Your task to perform on an android device: add a contact in the contacts app Image 0: 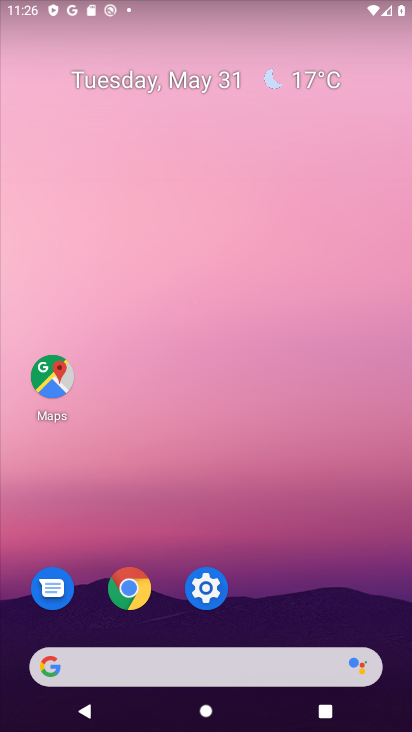
Step 0: press home button
Your task to perform on an android device: add a contact in the contacts app Image 1: 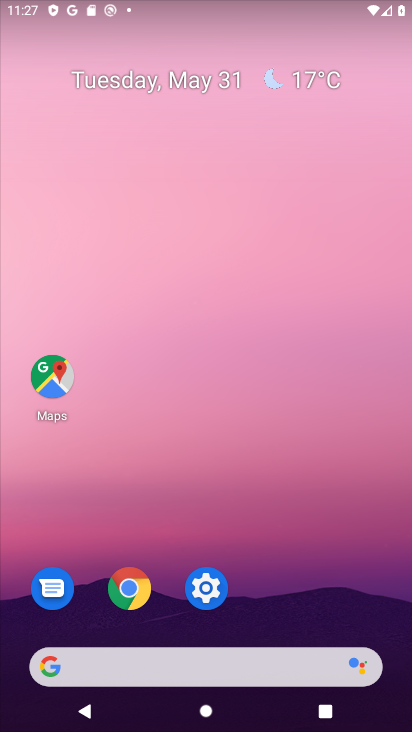
Step 1: drag from (254, 688) to (346, 219)
Your task to perform on an android device: add a contact in the contacts app Image 2: 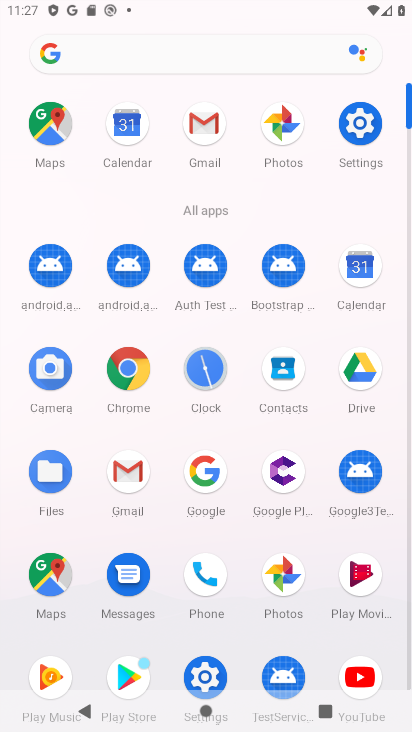
Step 2: click (203, 568)
Your task to perform on an android device: add a contact in the contacts app Image 3: 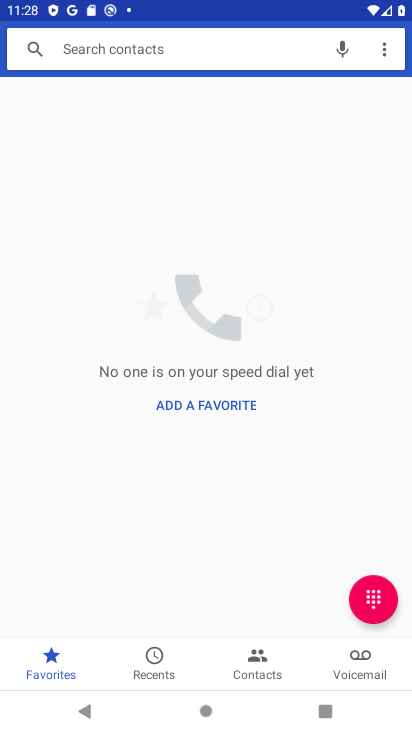
Step 3: click (265, 653)
Your task to perform on an android device: add a contact in the contacts app Image 4: 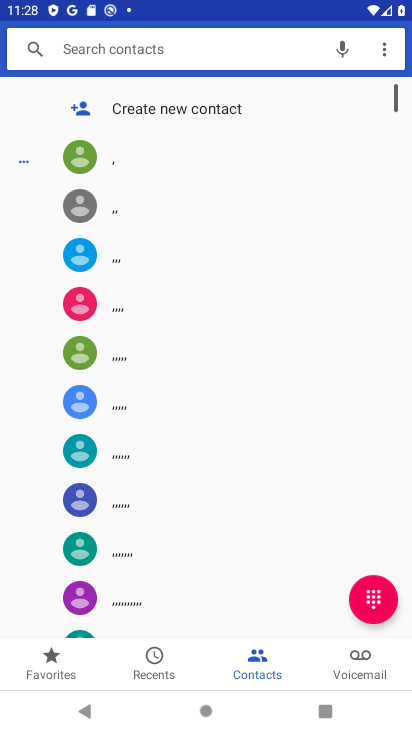
Step 4: click (172, 108)
Your task to perform on an android device: add a contact in the contacts app Image 5: 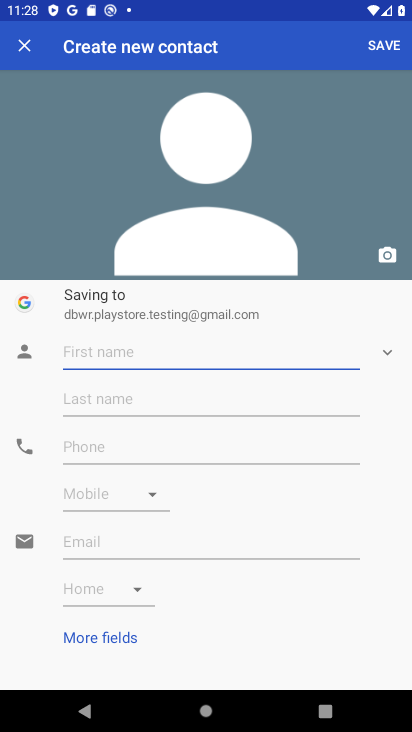
Step 5: click (98, 342)
Your task to perform on an android device: add a contact in the contacts app Image 6: 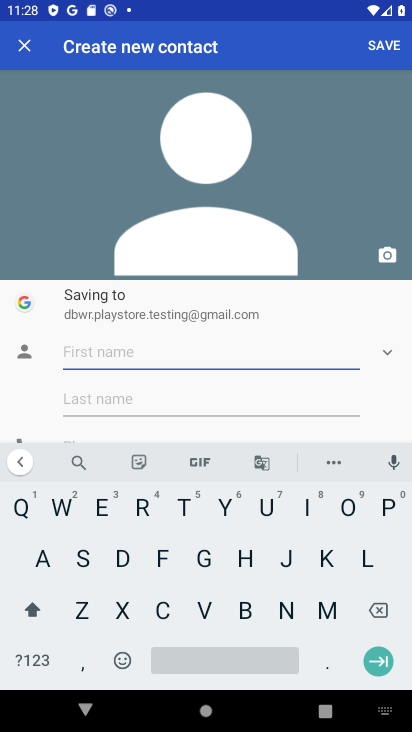
Step 6: click (247, 546)
Your task to perform on an android device: add a contact in the contacts app Image 7: 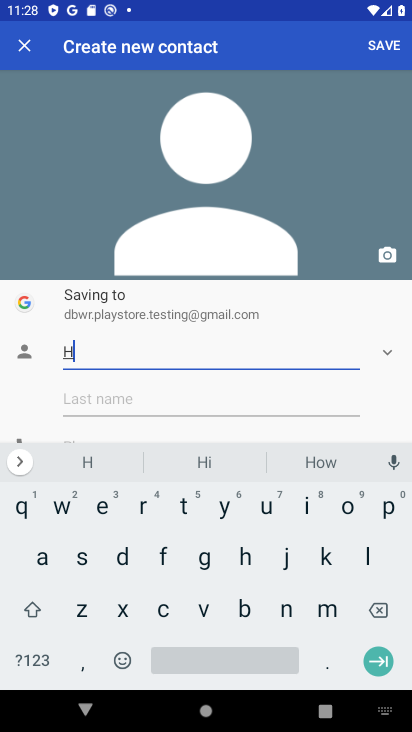
Step 7: click (152, 587)
Your task to perform on an android device: add a contact in the contacts app Image 8: 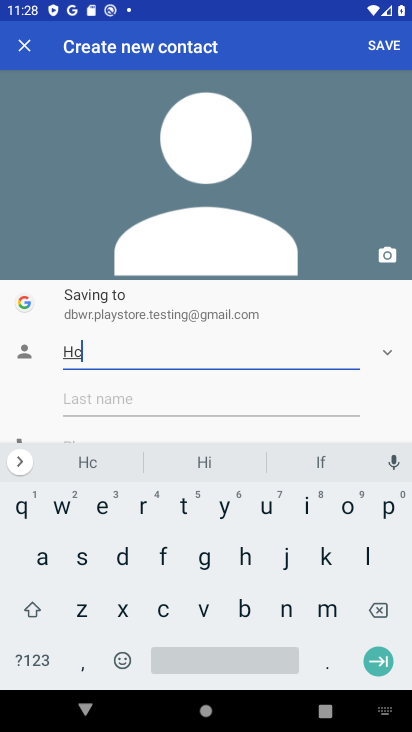
Step 8: click (93, 572)
Your task to perform on an android device: add a contact in the contacts app Image 9: 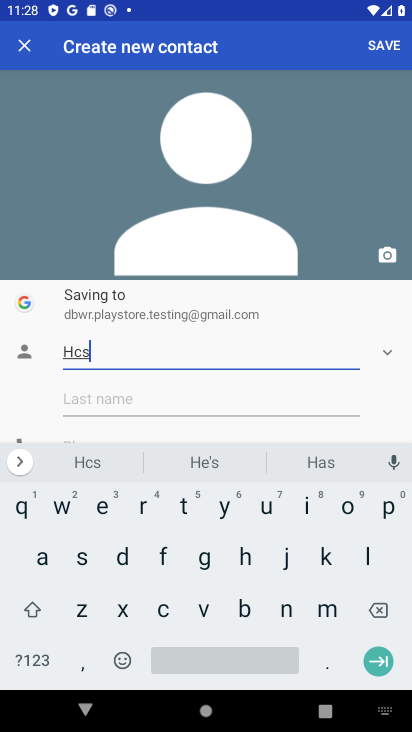
Step 9: click (115, 433)
Your task to perform on an android device: add a contact in the contacts app Image 10: 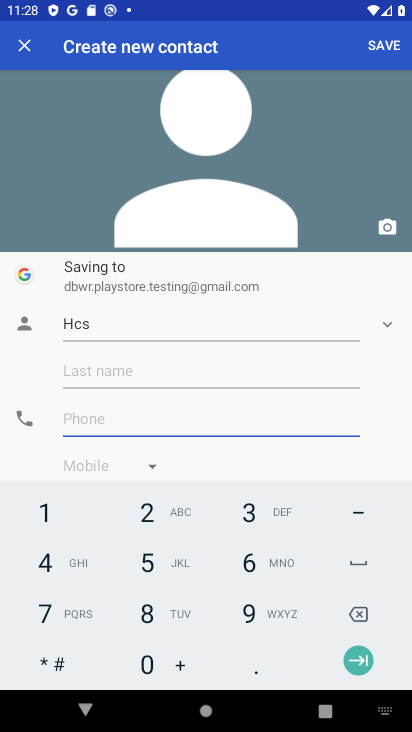
Step 10: click (179, 569)
Your task to perform on an android device: add a contact in the contacts app Image 11: 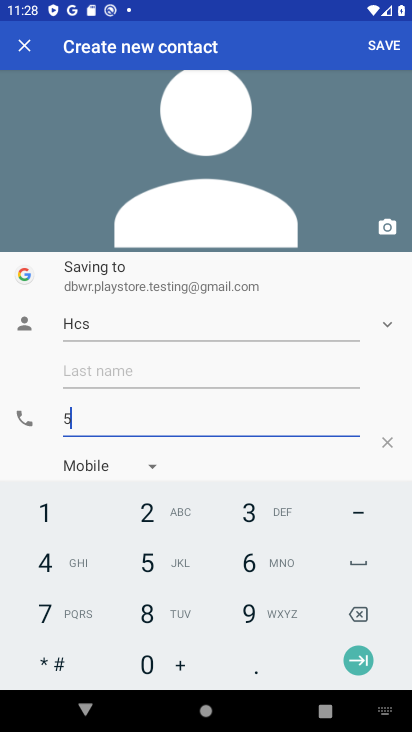
Step 11: click (176, 567)
Your task to perform on an android device: add a contact in the contacts app Image 12: 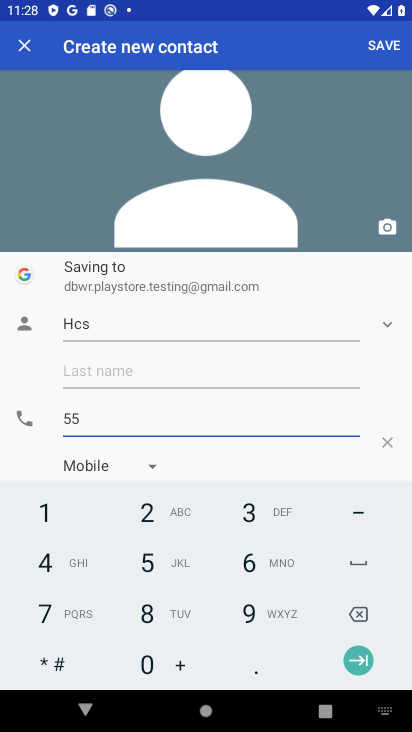
Step 12: click (265, 538)
Your task to perform on an android device: add a contact in the contacts app Image 13: 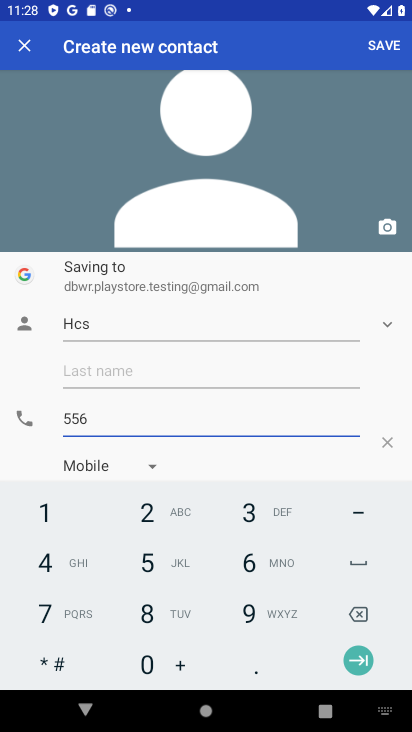
Step 13: click (254, 559)
Your task to perform on an android device: add a contact in the contacts app Image 14: 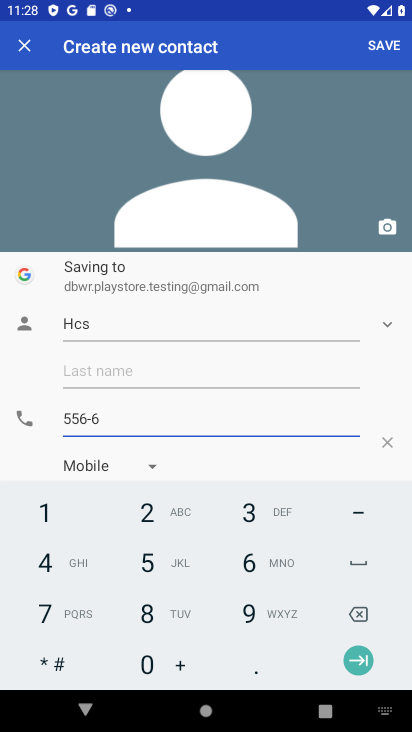
Step 14: click (247, 527)
Your task to perform on an android device: add a contact in the contacts app Image 15: 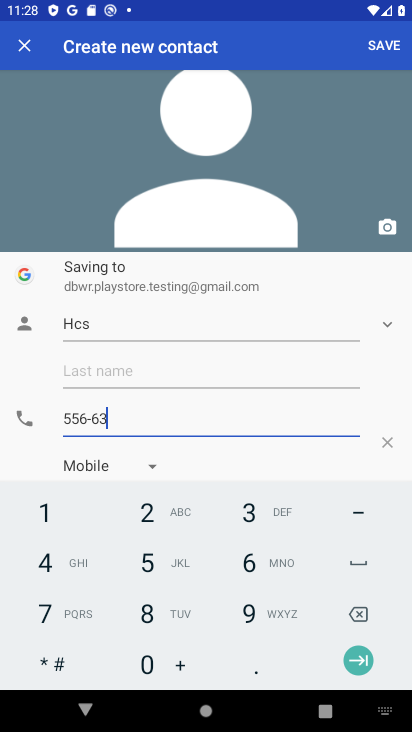
Step 15: click (383, 48)
Your task to perform on an android device: add a contact in the contacts app Image 16: 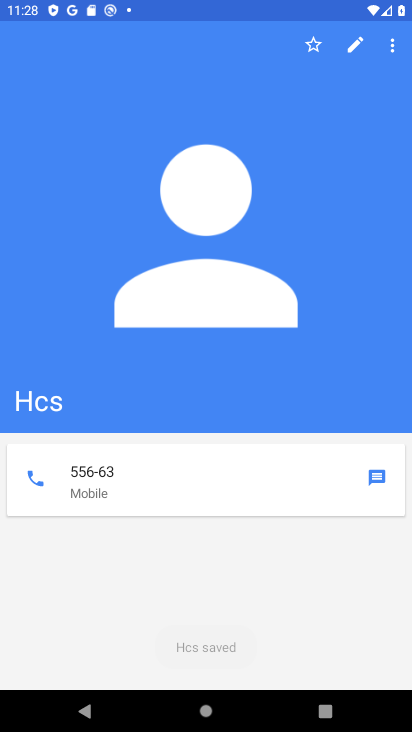
Step 16: task complete